Your task to perform on an android device: change notifications settings Image 0: 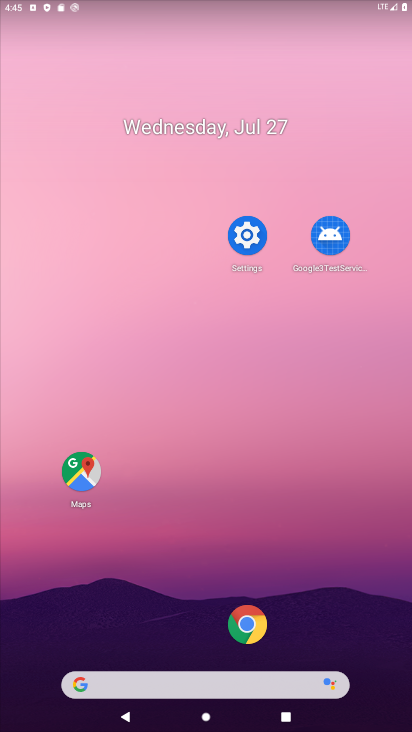
Step 0: click (240, 214)
Your task to perform on an android device: change notifications settings Image 1: 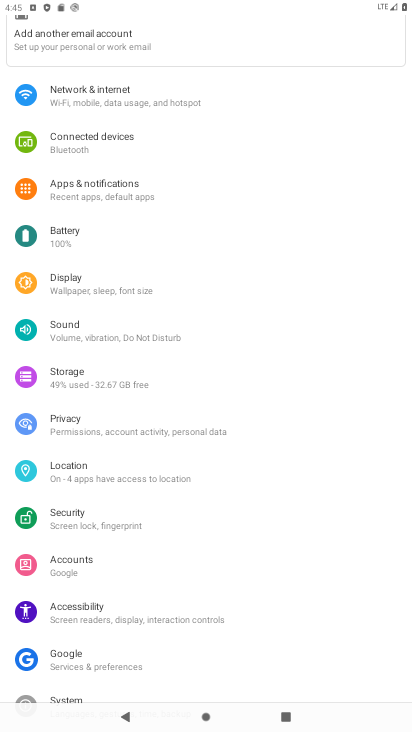
Step 1: click (112, 181)
Your task to perform on an android device: change notifications settings Image 2: 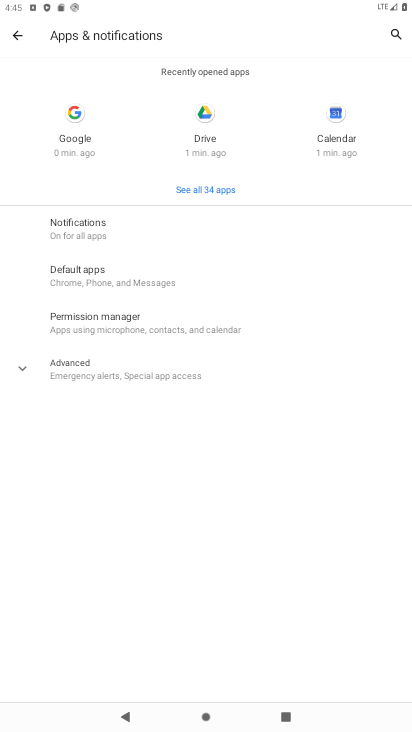
Step 2: task complete